Your task to perform on an android device: star an email in the gmail app Image 0: 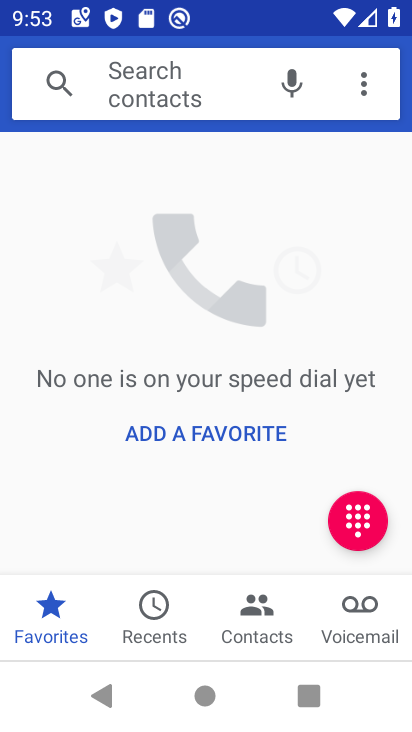
Step 0: press back button
Your task to perform on an android device: star an email in the gmail app Image 1: 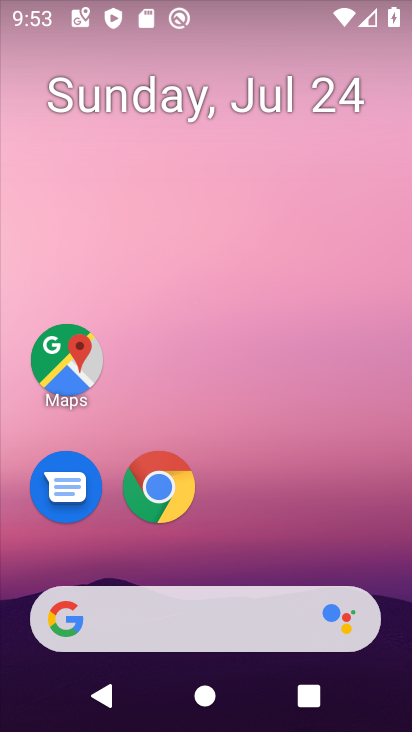
Step 1: drag from (268, 416) to (296, 57)
Your task to perform on an android device: star an email in the gmail app Image 2: 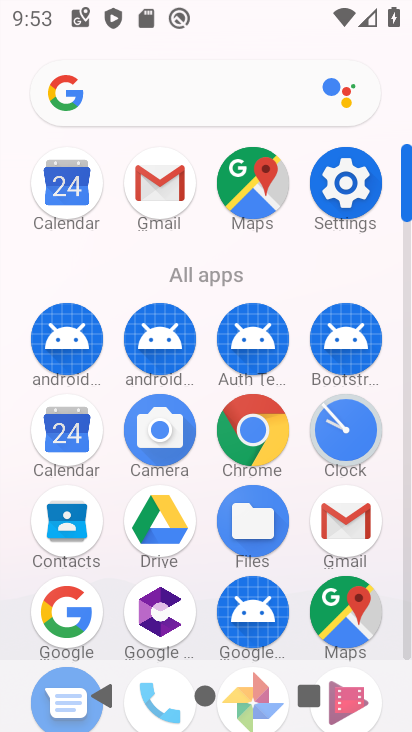
Step 2: click (153, 188)
Your task to perform on an android device: star an email in the gmail app Image 3: 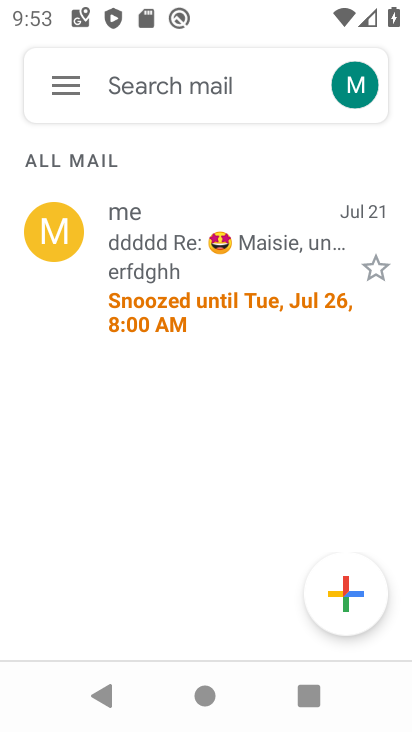
Step 3: click (378, 270)
Your task to perform on an android device: star an email in the gmail app Image 4: 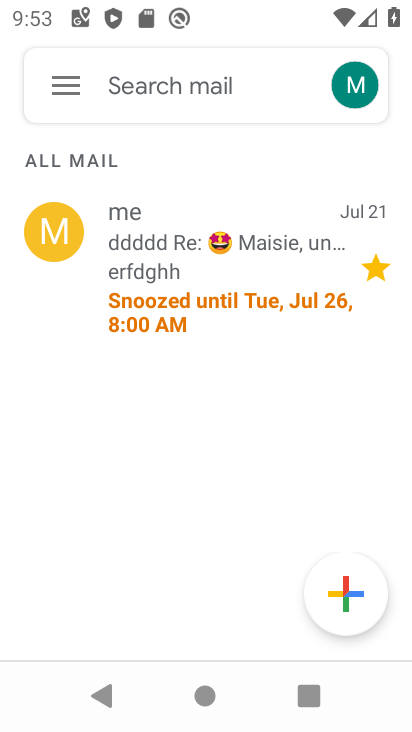
Step 4: task complete